Your task to perform on an android device: turn off improve location accuracy Image 0: 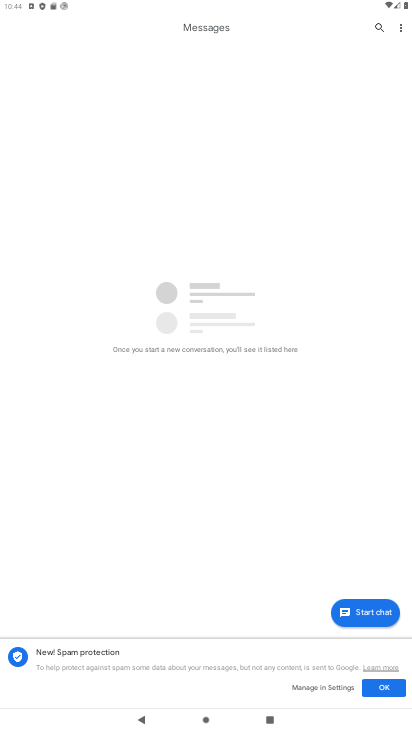
Step 0: press home button
Your task to perform on an android device: turn off improve location accuracy Image 1: 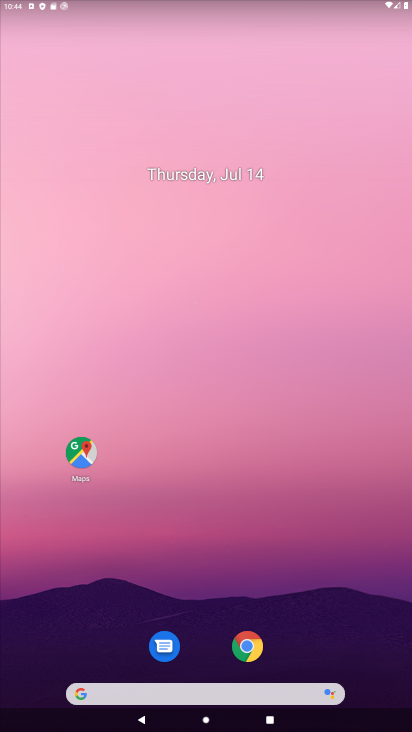
Step 1: drag from (208, 613) to (212, 157)
Your task to perform on an android device: turn off improve location accuracy Image 2: 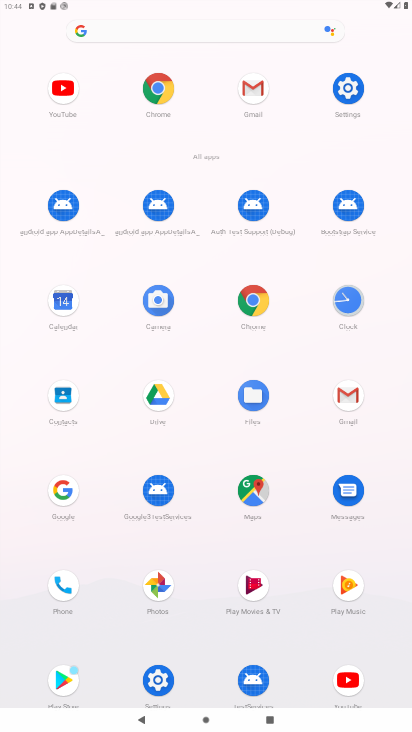
Step 2: click (344, 98)
Your task to perform on an android device: turn off improve location accuracy Image 3: 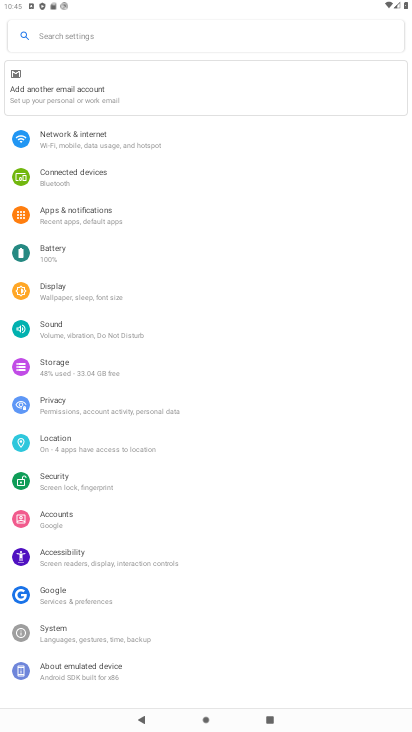
Step 3: click (54, 454)
Your task to perform on an android device: turn off improve location accuracy Image 4: 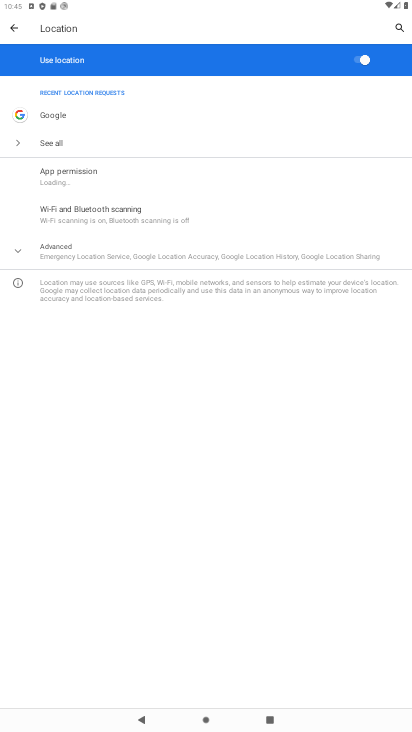
Step 4: click (75, 248)
Your task to perform on an android device: turn off improve location accuracy Image 5: 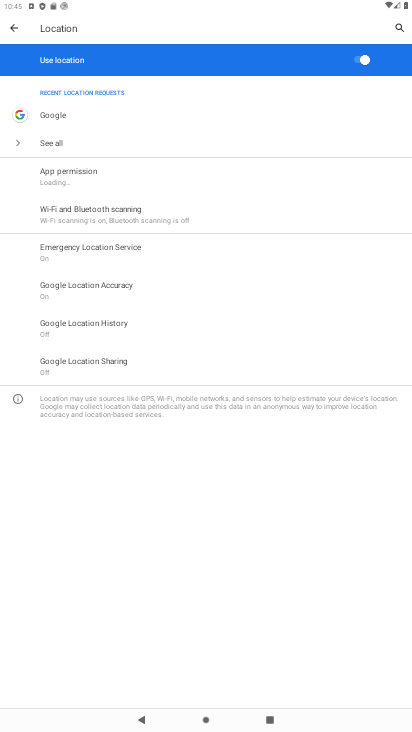
Step 5: click (141, 283)
Your task to perform on an android device: turn off improve location accuracy Image 6: 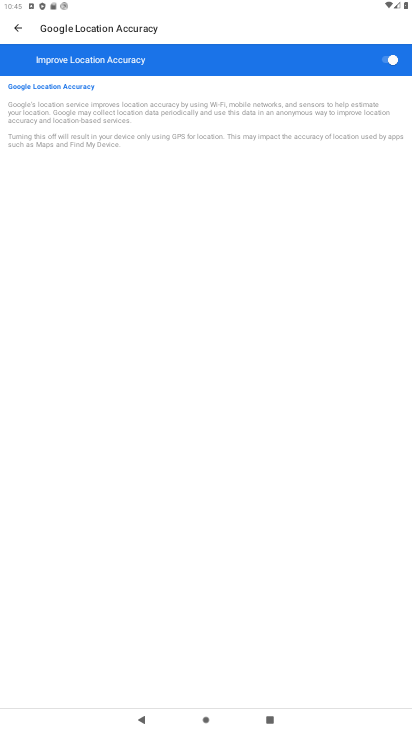
Step 6: click (381, 58)
Your task to perform on an android device: turn off improve location accuracy Image 7: 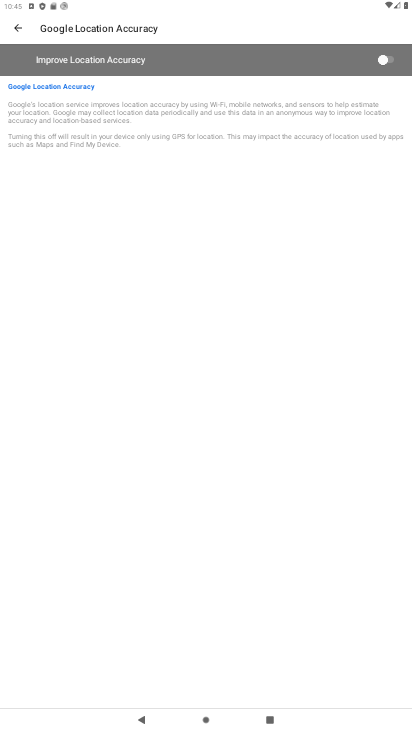
Step 7: task complete